Your task to perform on an android device: see creations saved in the google photos Image 0: 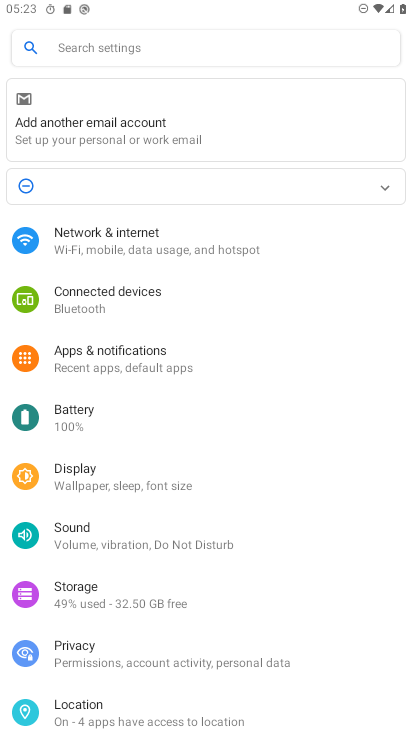
Step 0: press home button
Your task to perform on an android device: see creations saved in the google photos Image 1: 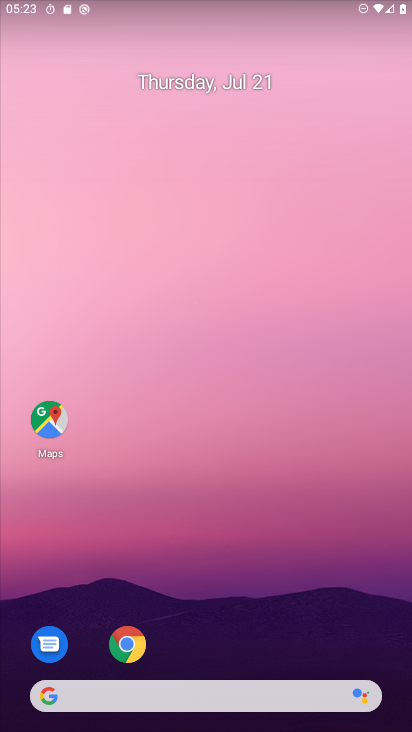
Step 1: drag from (183, 604) to (195, 22)
Your task to perform on an android device: see creations saved in the google photos Image 2: 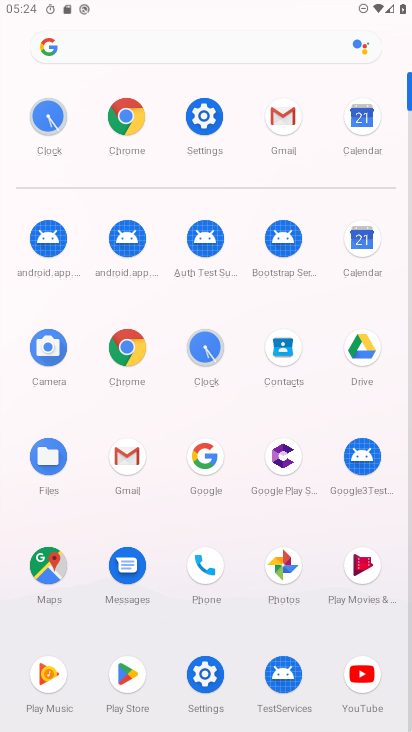
Step 2: click (283, 572)
Your task to perform on an android device: see creations saved in the google photos Image 3: 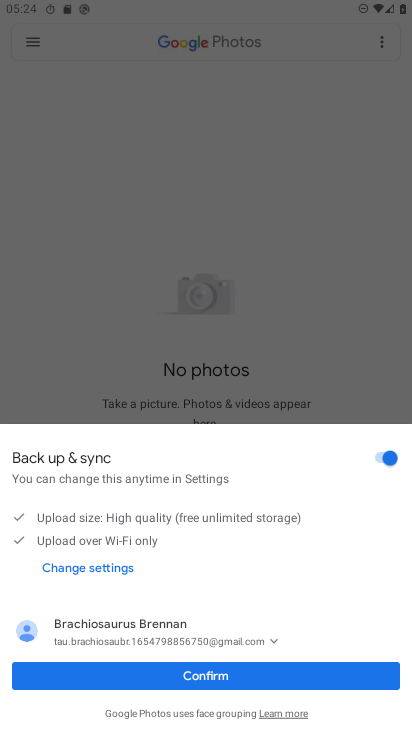
Step 3: click (201, 673)
Your task to perform on an android device: see creations saved in the google photos Image 4: 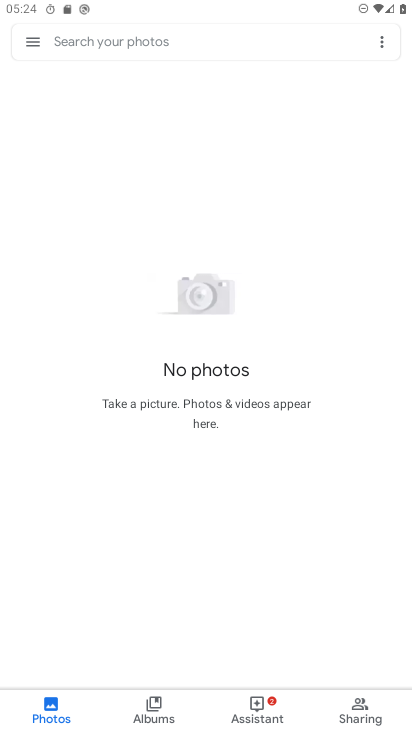
Step 4: click (179, 40)
Your task to perform on an android device: see creations saved in the google photos Image 5: 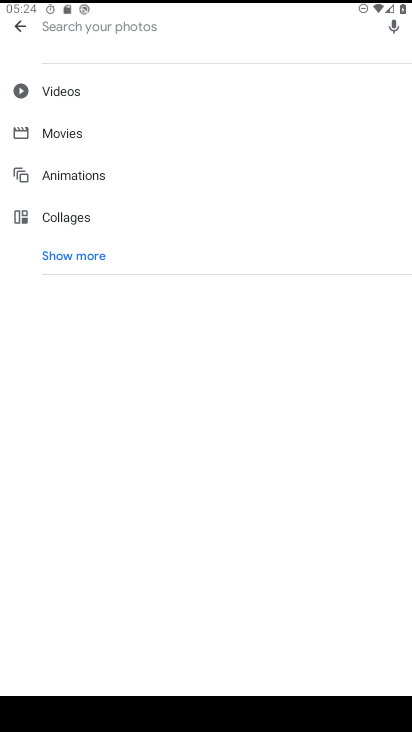
Step 5: click (68, 262)
Your task to perform on an android device: see creations saved in the google photos Image 6: 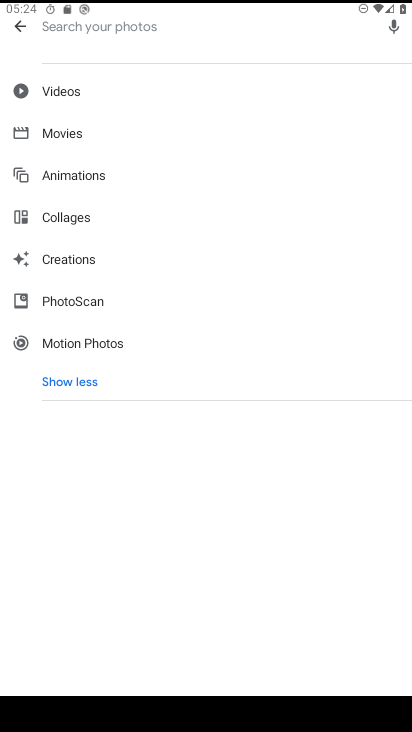
Step 6: click (64, 262)
Your task to perform on an android device: see creations saved in the google photos Image 7: 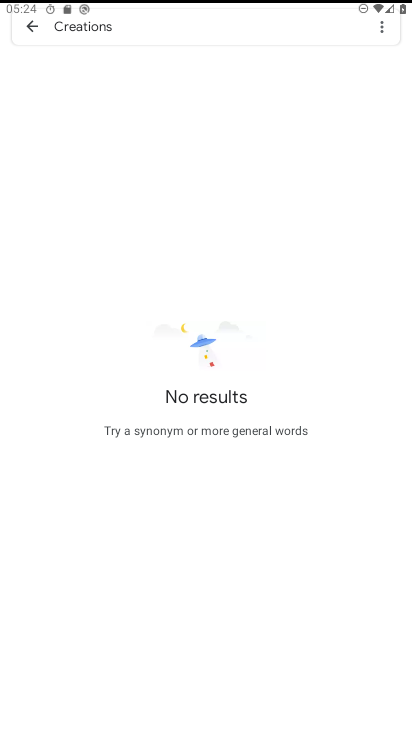
Step 7: task complete